Your task to perform on an android device: Open Android settings Image 0: 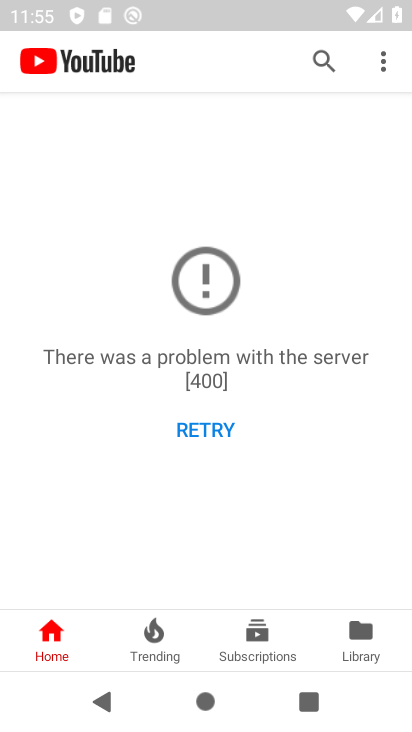
Step 0: press home button
Your task to perform on an android device: Open Android settings Image 1: 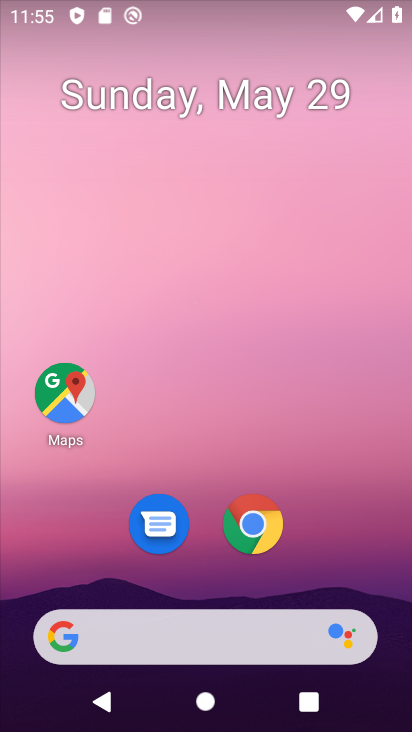
Step 1: drag from (238, 442) to (234, 2)
Your task to perform on an android device: Open Android settings Image 2: 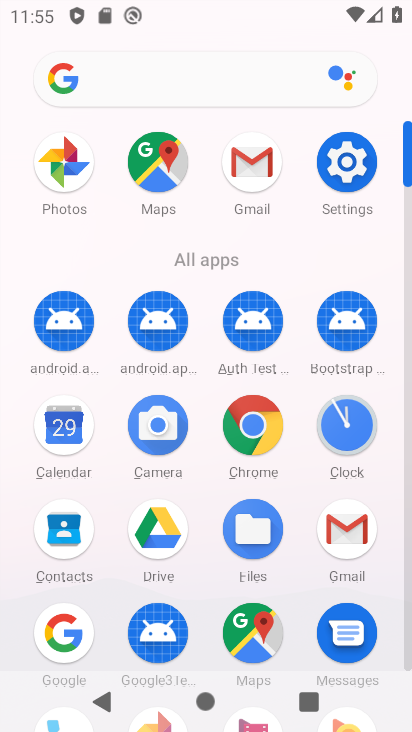
Step 2: click (356, 163)
Your task to perform on an android device: Open Android settings Image 3: 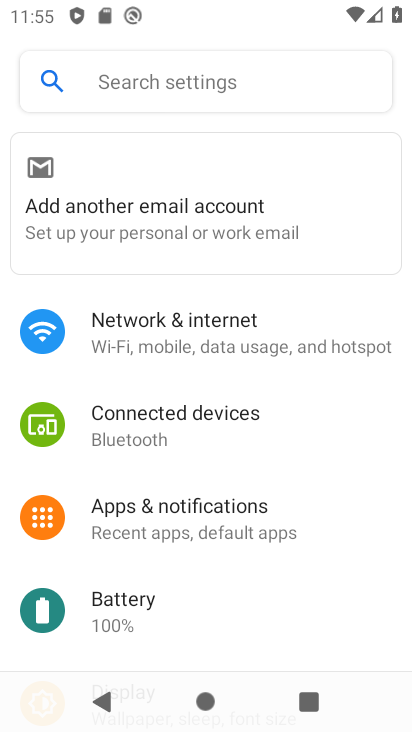
Step 3: drag from (198, 579) to (246, 8)
Your task to perform on an android device: Open Android settings Image 4: 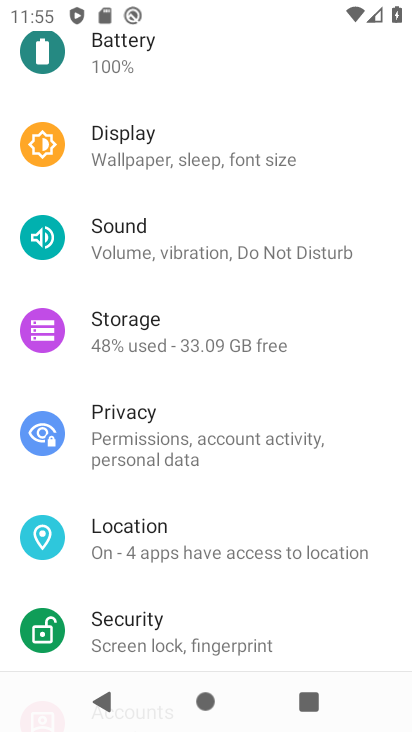
Step 4: drag from (209, 596) to (236, 4)
Your task to perform on an android device: Open Android settings Image 5: 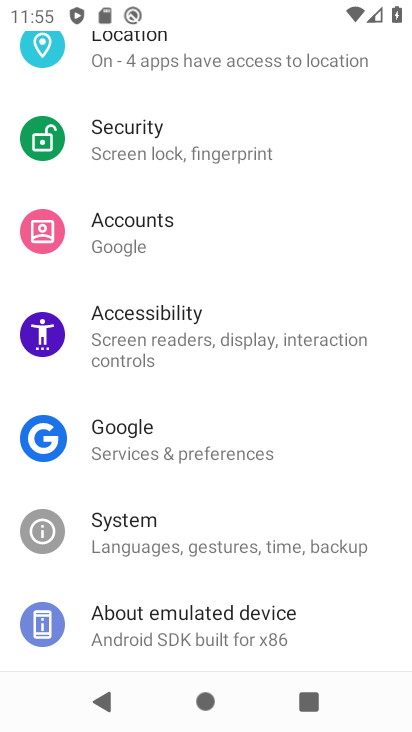
Step 5: click (187, 636)
Your task to perform on an android device: Open Android settings Image 6: 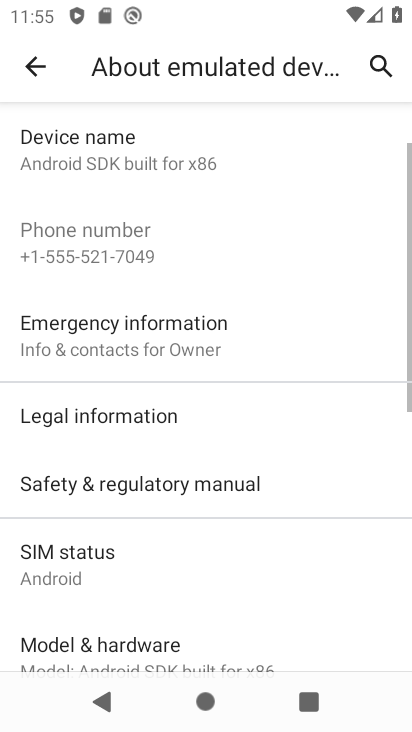
Step 6: task complete